Your task to perform on an android device: Open the phone app and click the voicemail tab. Image 0: 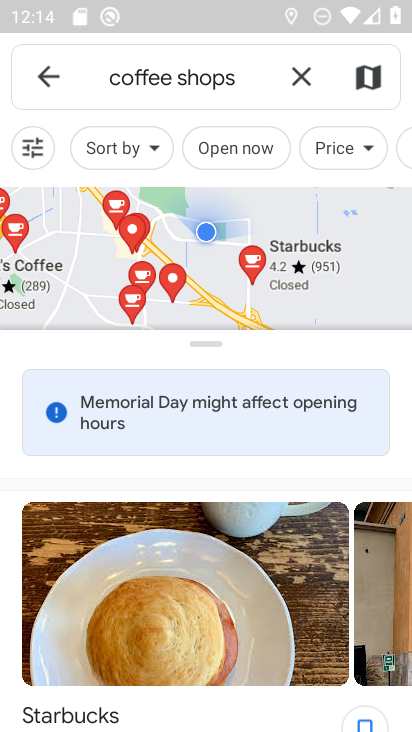
Step 0: press home button
Your task to perform on an android device: Open the phone app and click the voicemail tab. Image 1: 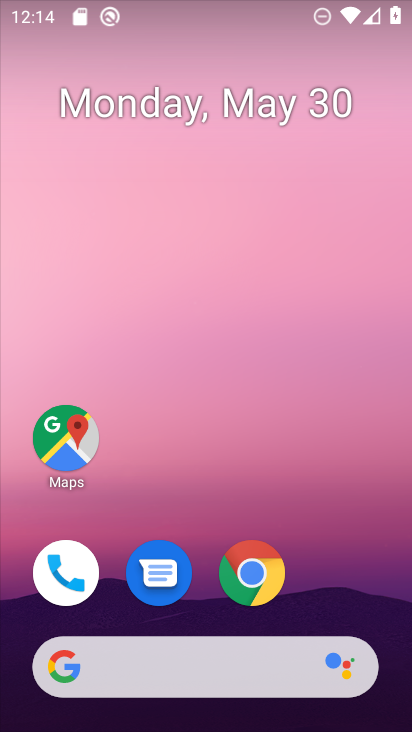
Step 1: drag from (315, 620) to (212, 160)
Your task to perform on an android device: Open the phone app and click the voicemail tab. Image 2: 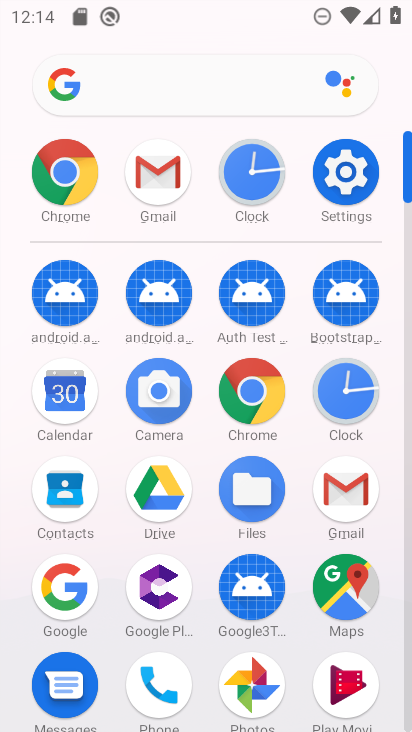
Step 2: click (140, 694)
Your task to perform on an android device: Open the phone app and click the voicemail tab. Image 3: 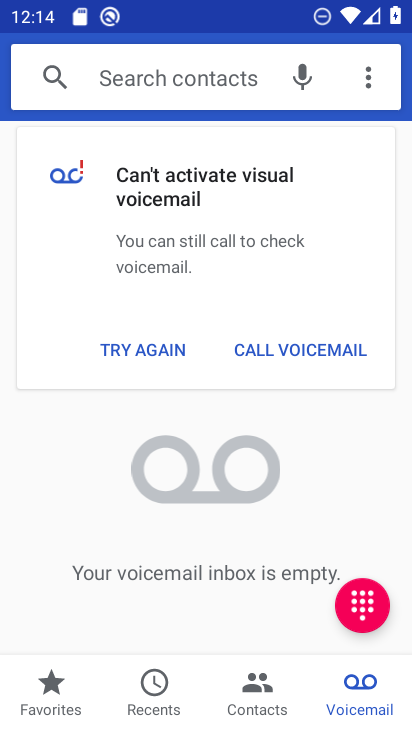
Step 3: click (353, 686)
Your task to perform on an android device: Open the phone app and click the voicemail tab. Image 4: 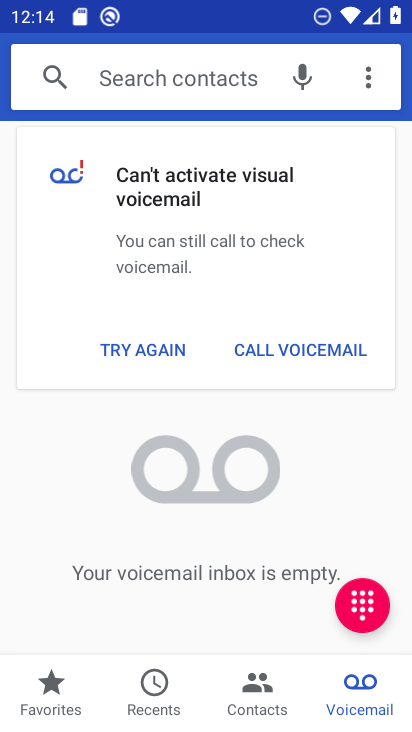
Step 4: task complete